Your task to perform on an android device: Search for dell xps on ebay, select the first entry, and add it to the cart. Image 0: 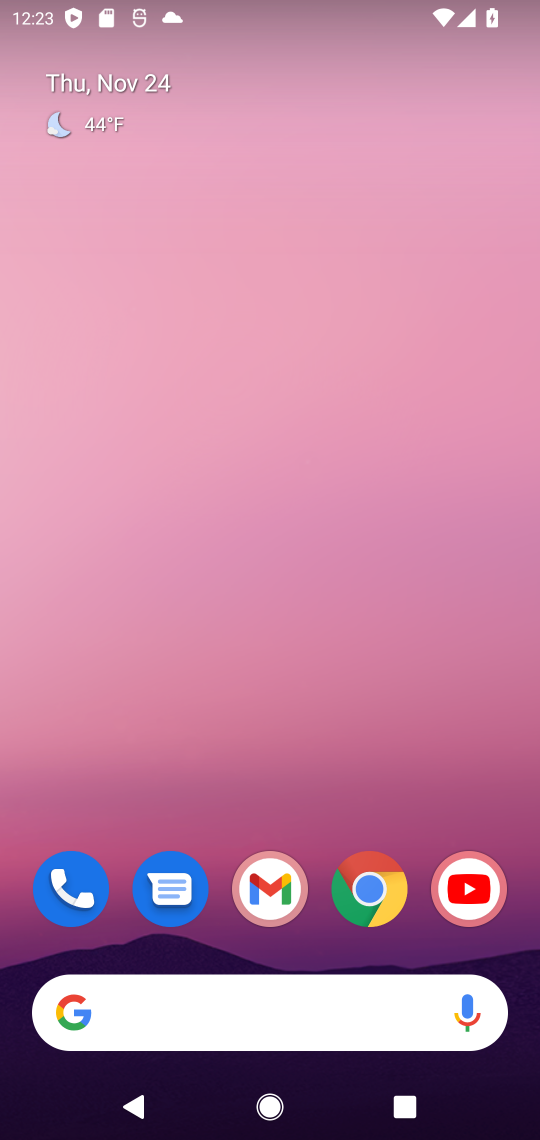
Step 0: click (377, 889)
Your task to perform on an android device: Search for dell xps on ebay, select the first entry, and add it to the cart. Image 1: 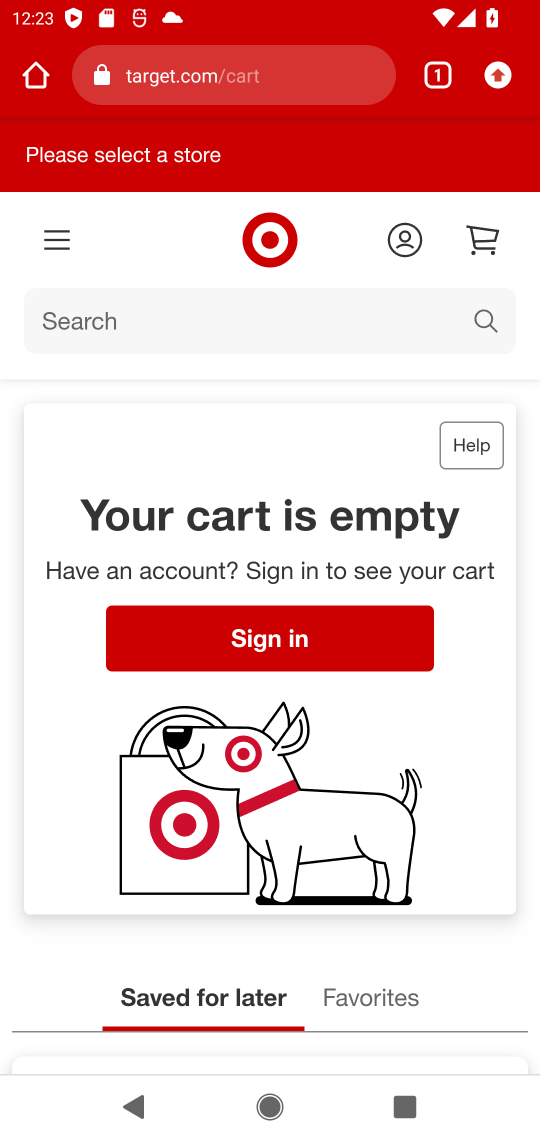
Step 1: click (176, 84)
Your task to perform on an android device: Search for dell xps on ebay, select the first entry, and add it to the cart. Image 2: 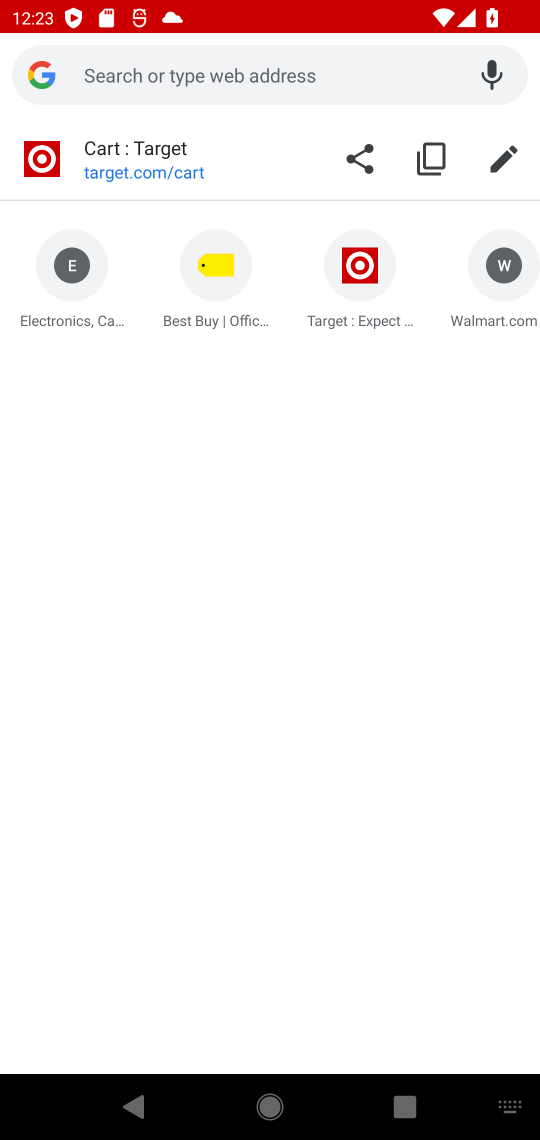
Step 2: type "ebay.com"
Your task to perform on an android device: Search for dell xps on ebay, select the first entry, and add it to the cart. Image 3: 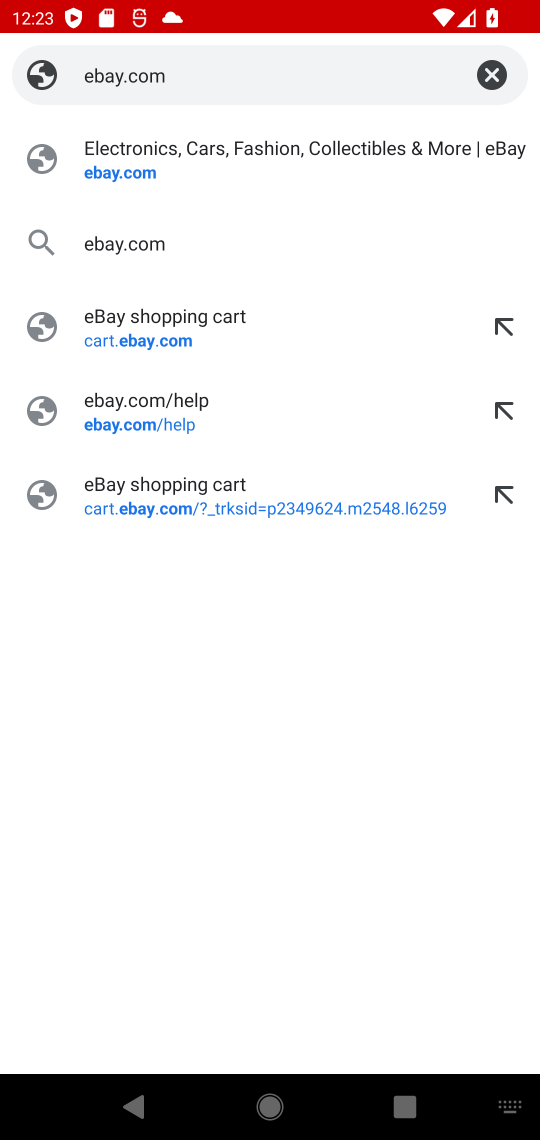
Step 3: click (116, 174)
Your task to perform on an android device: Search for dell xps on ebay, select the first entry, and add it to the cart. Image 4: 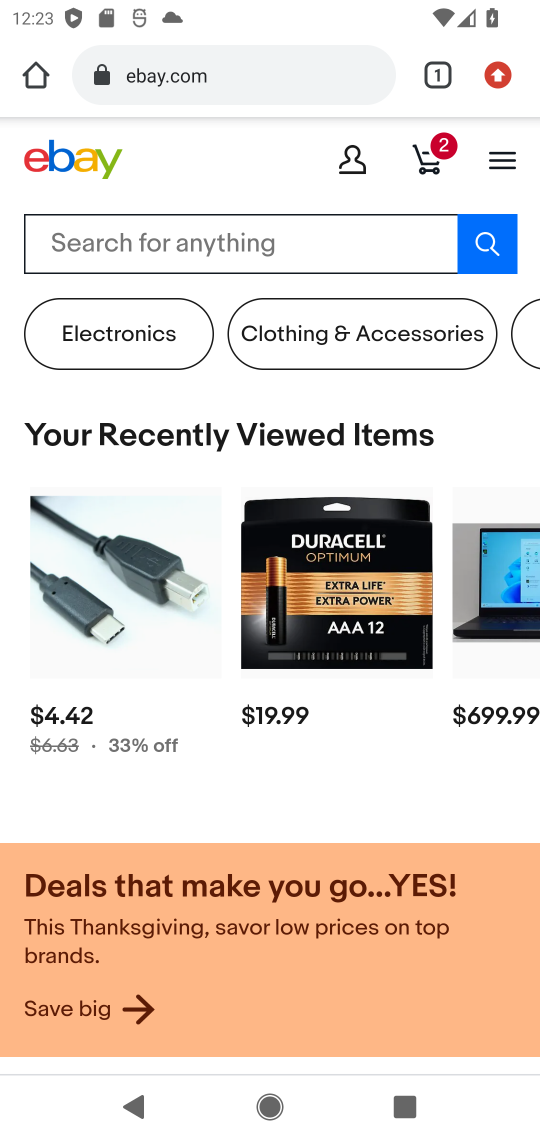
Step 4: click (89, 244)
Your task to perform on an android device: Search for dell xps on ebay, select the first entry, and add it to the cart. Image 5: 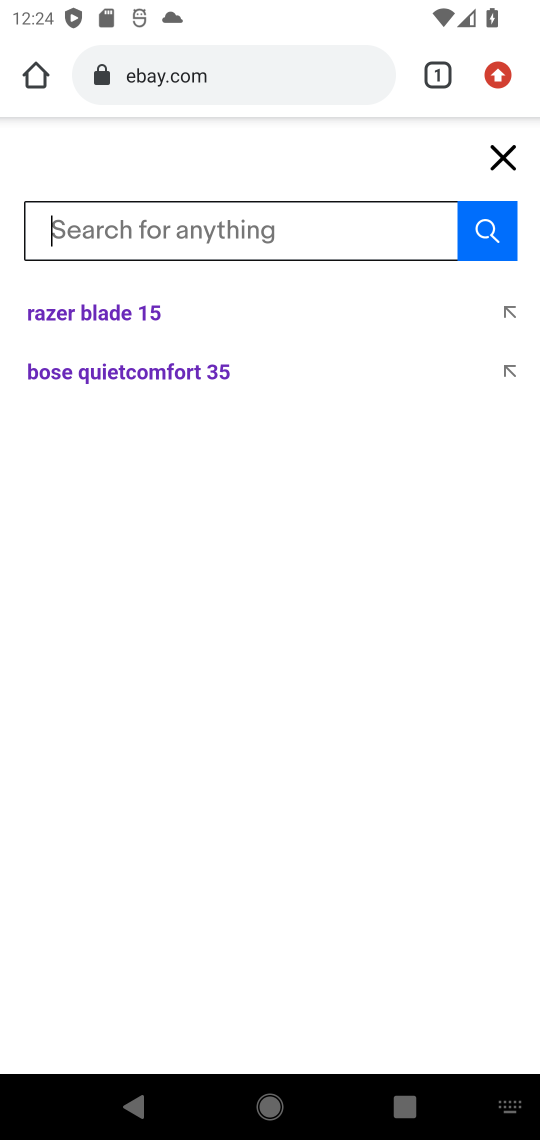
Step 5: type "dell xps"
Your task to perform on an android device: Search for dell xps on ebay, select the first entry, and add it to the cart. Image 6: 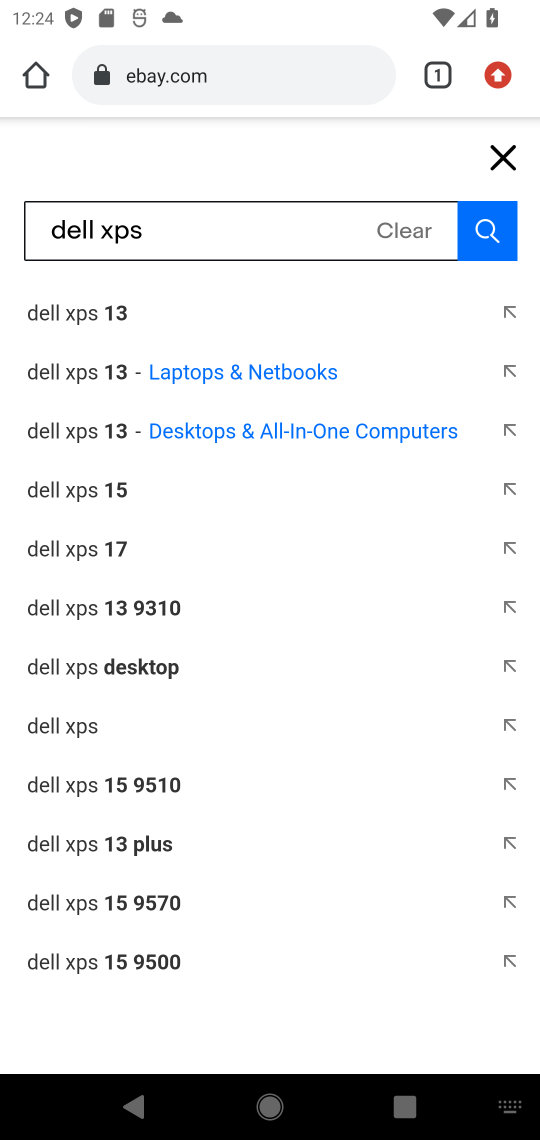
Step 6: click (38, 324)
Your task to perform on an android device: Search for dell xps on ebay, select the first entry, and add it to the cart. Image 7: 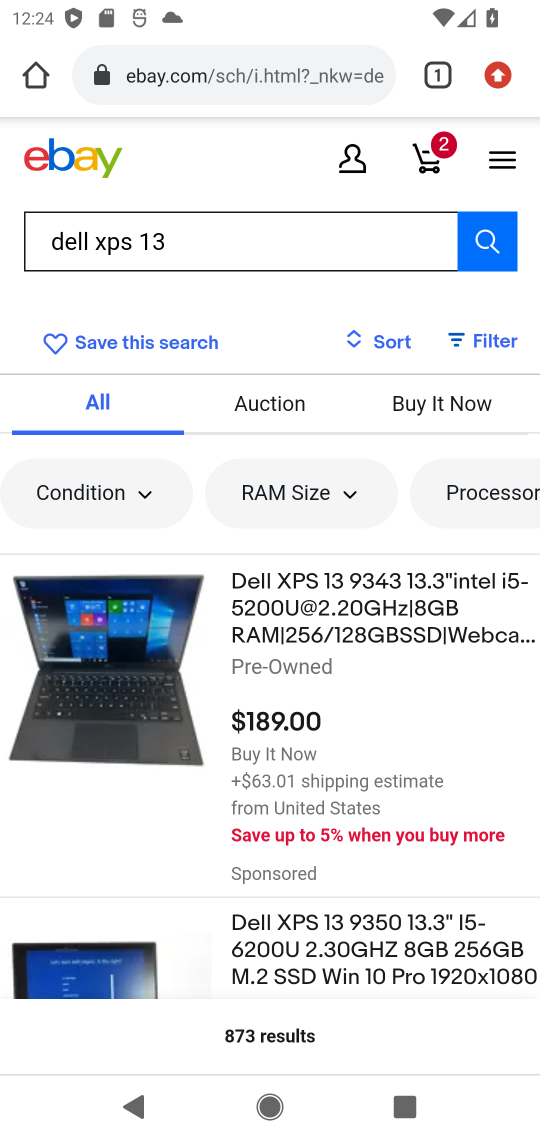
Step 7: click (133, 732)
Your task to perform on an android device: Search for dell xps on ebay, select the first entry, and add it to the cart. Image 8: 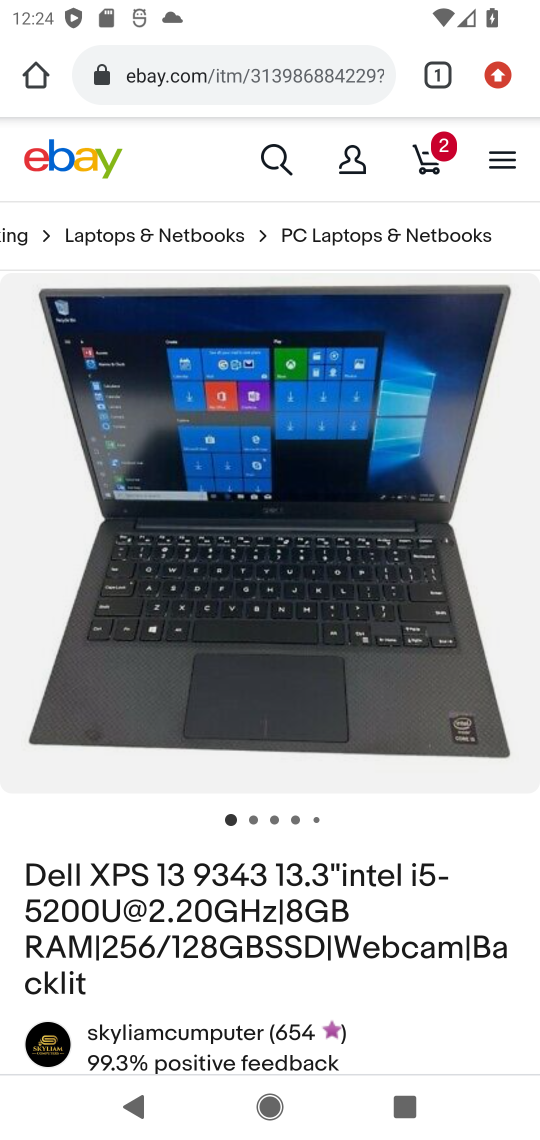
Step 8: drag from (217, 785) to (218, 373)
Your task to perform on an android device: Search for dell xps on ebay, select the first entry, and add it to the cart. Image 9: 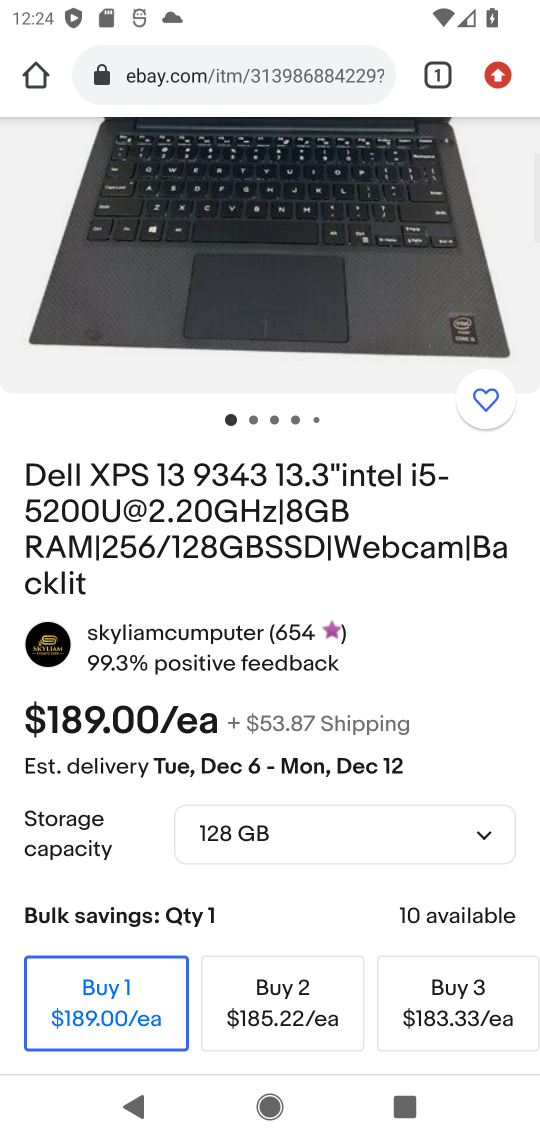
Step 9: drag from (212, 796) to (204, 365)
Your task to perform on an android device: Search for dell xps on ebay, select the first entry, and add it to the cart. Image 10: 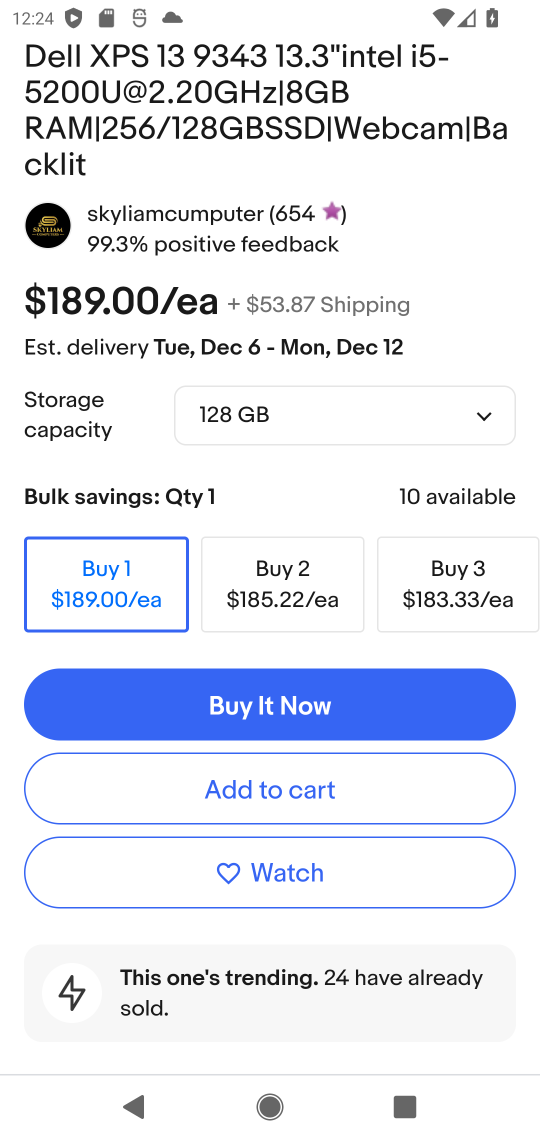
Step 10: click (229, 788)
Your task to perform on an android device: Search for dell xps on ebay, select the first entry, and add it to the cart. Image 11: 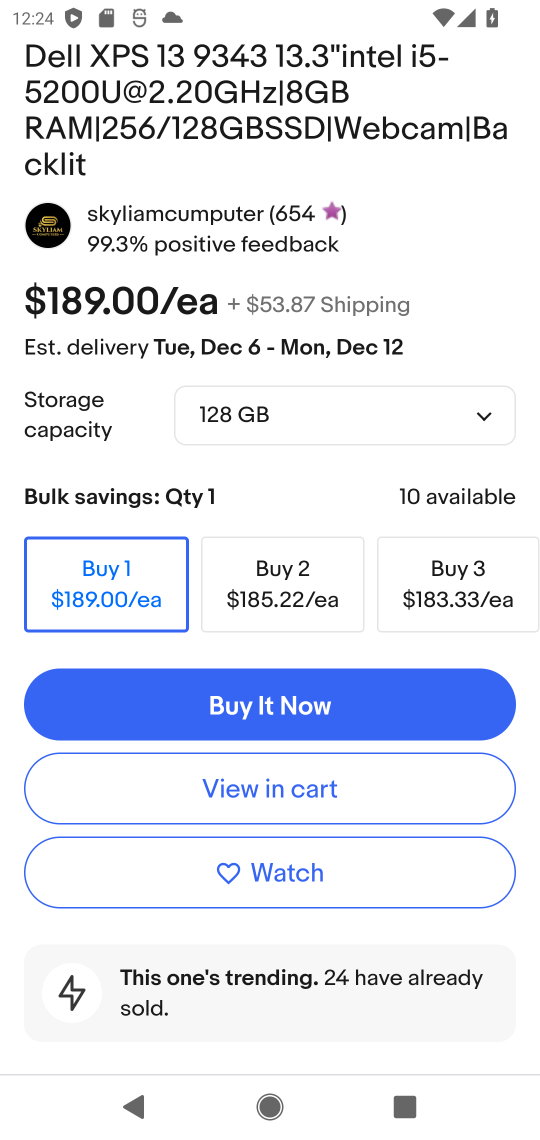
Step 11: task complete